Your task to perform on an android device: turn on translation in the chrome app Image 0: 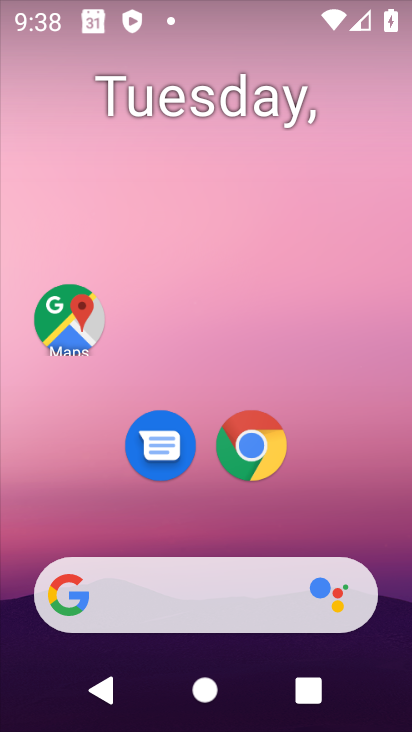
Step 0: press home button
Your task to perform on an android device: turn on translation in the chrome app Image 1: 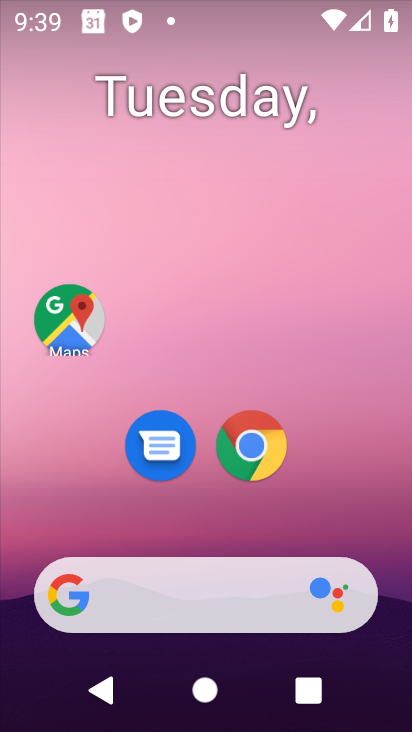
Step 1: click (250, 438)
Your task to perform on an android device: turn on translation in the chrome app Image 2: 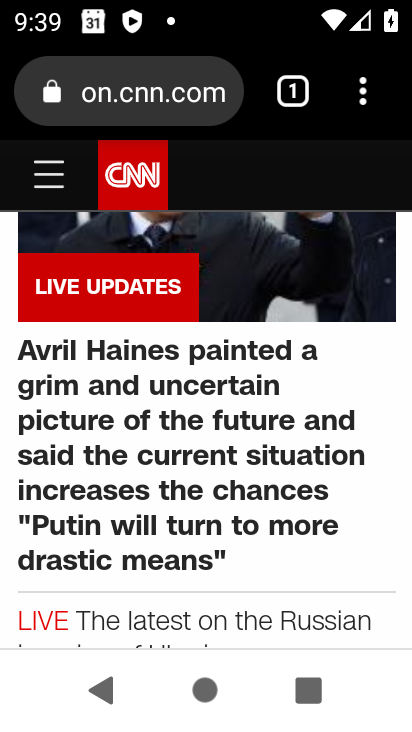
Step 2: click (367, 74)
Your task to perform on an android device: turn on translation in the chrome app Image 3: 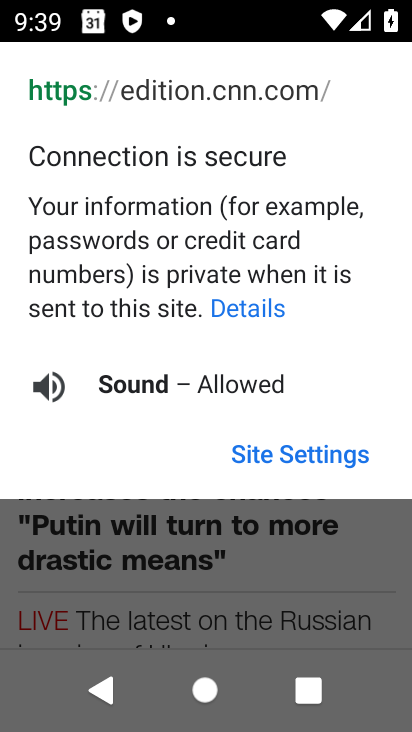
Step 3: click (160, 581)
Your task to perform on an android device: turn on translation in the chrome app Image 4: 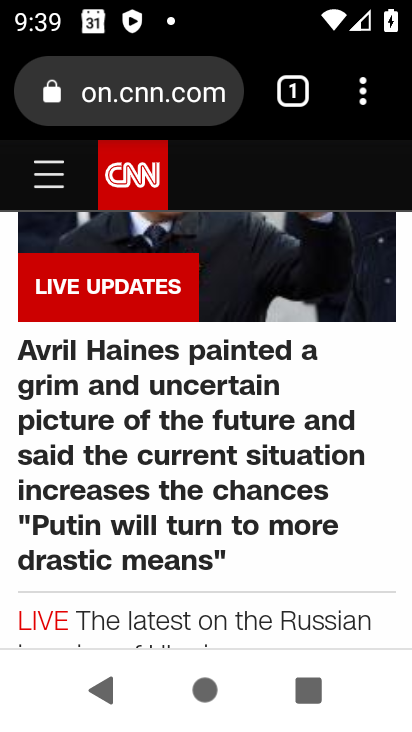
Step 4: click (367, 77)
Your task to perform on an android device: turn on translation in the chrome app Image 5: 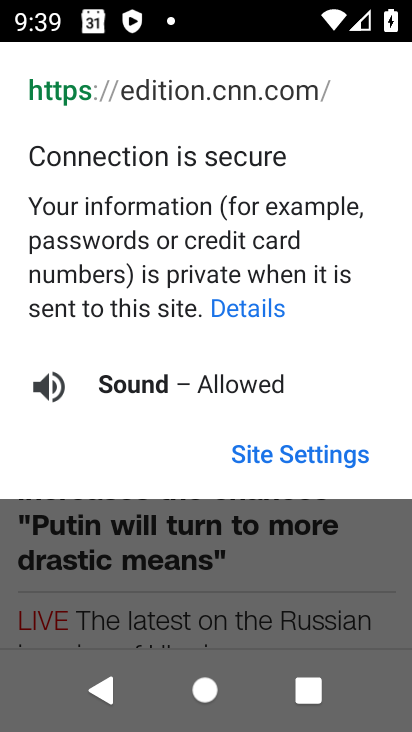
Step 5: click (171, 584)
Your task to perform on an android device: turn on translation in the chrome app Image 6: 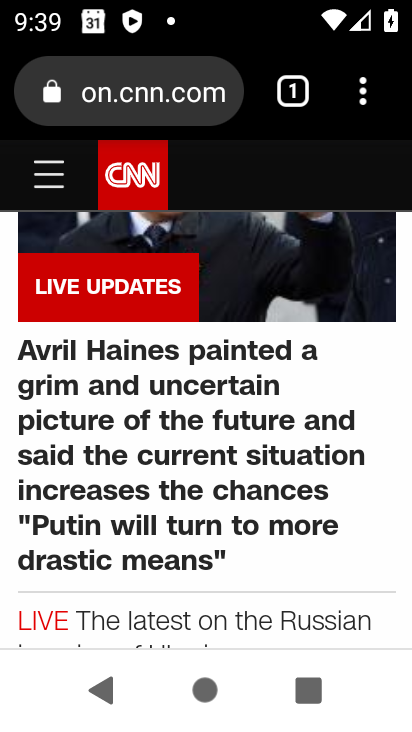
Step 6: press back button
Your task to perform on an android device: turn on translation in the chrome app Image 7: 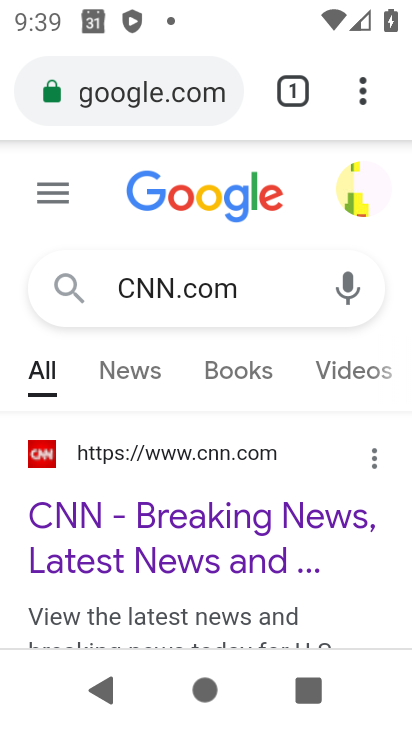
Step 7: click (367, 89)
Your task to perform on an android device: turn on translation in the chrome app Image 8: 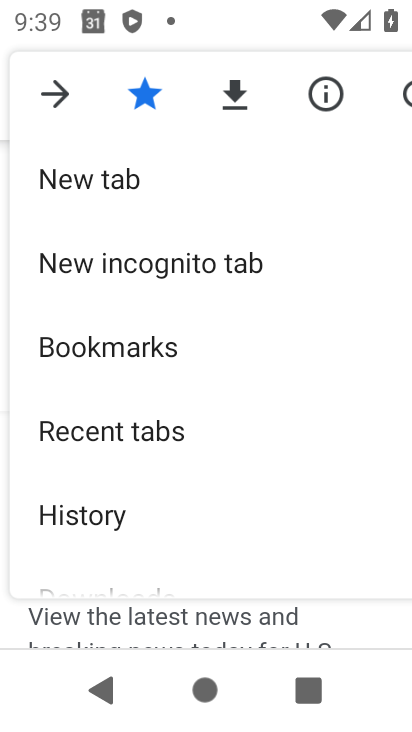
Step 8: drag from (164, 497) to (220, 52)
Your task to perform on an android device: turn on translation in the chrome app Image 9: 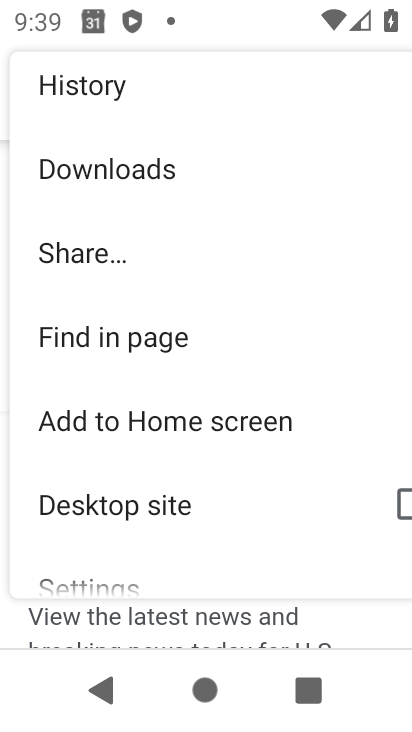
Step 9: click (137, 570)
Your task to perform on an android device: turn on translation in the chrome app Image 10: 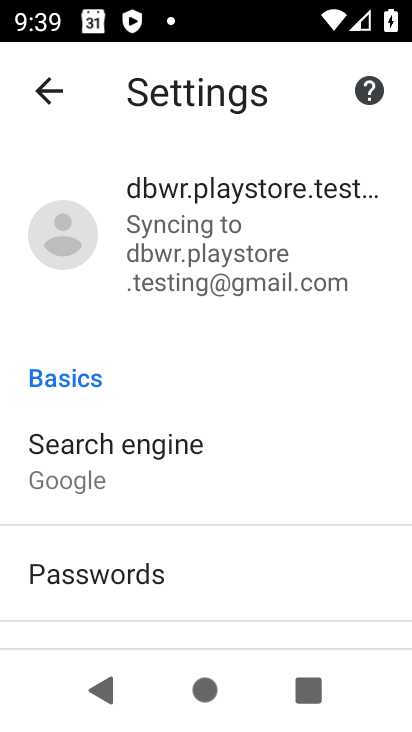
Step 10: drag from (210, 612) to (219, 125)
Your task to perform on an android device: turn on translation in the chrome app Image 11: 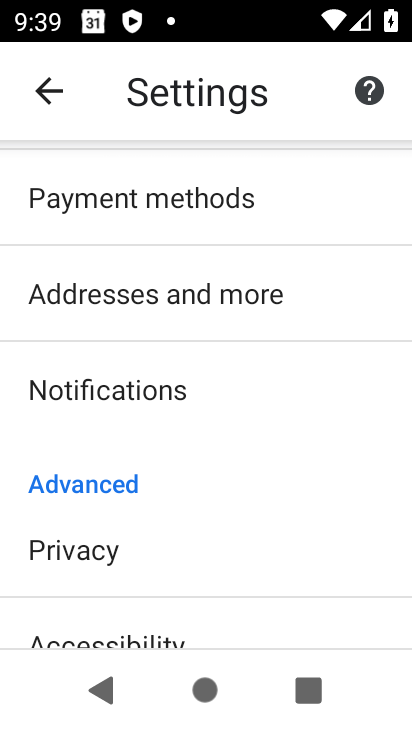
Step 11: drag from (199, 595) to (236, 151)
Your task to perform on an android device: turn on translation in the chrome app Image 12: 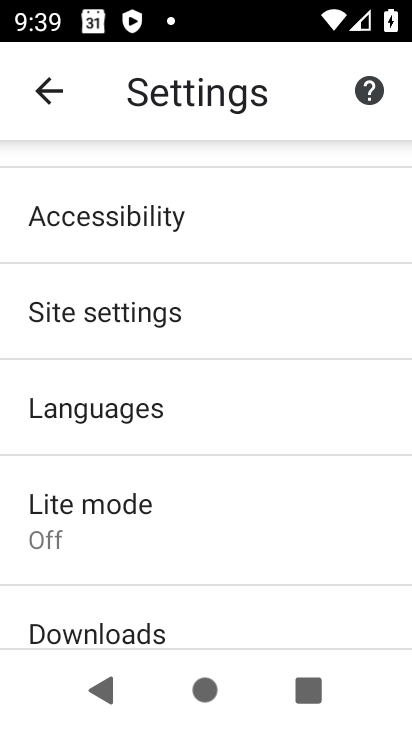
Step 12: click (164, 409)
Your task to perform on an android device: turn on translation in the chrome app Image 13: 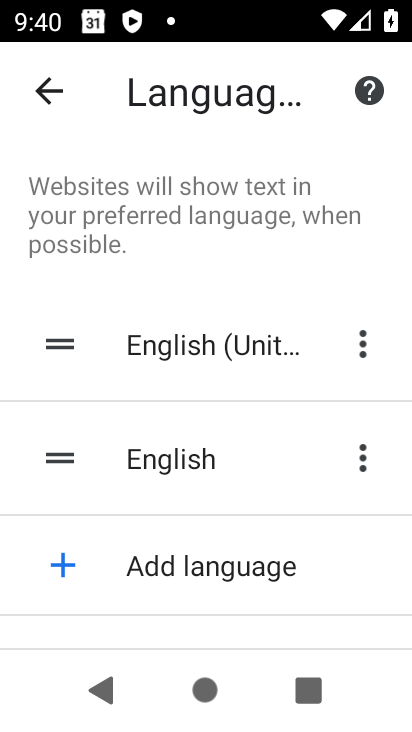
Step 13: drag from (190, 620) to (229, 227)
Your task to perform on an android device: turn on translation in the chrome app Image 14: 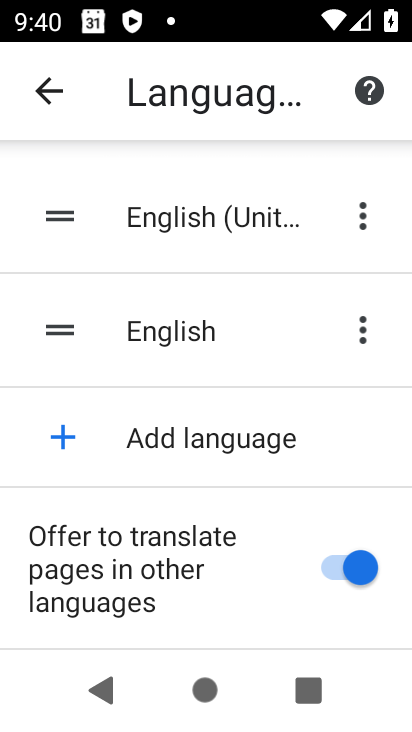
Step 14: click (47, 87)
Your task to perform on an android device: turn on translation in the chrome app Image 15: 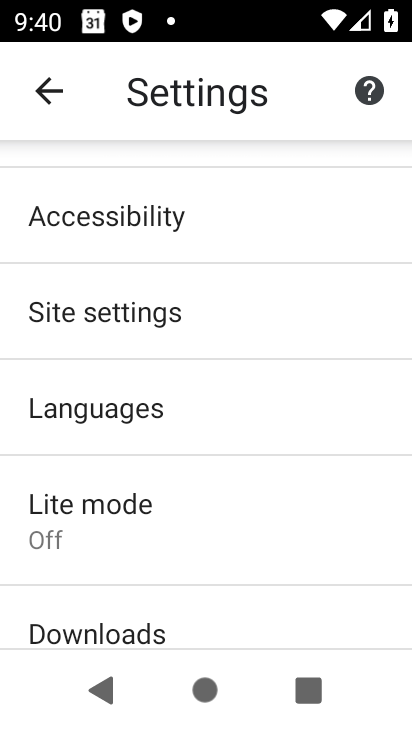
Step 15: click (184, 404)
Your task to perform on an android device: turn on translation in the chrome app Image 16: 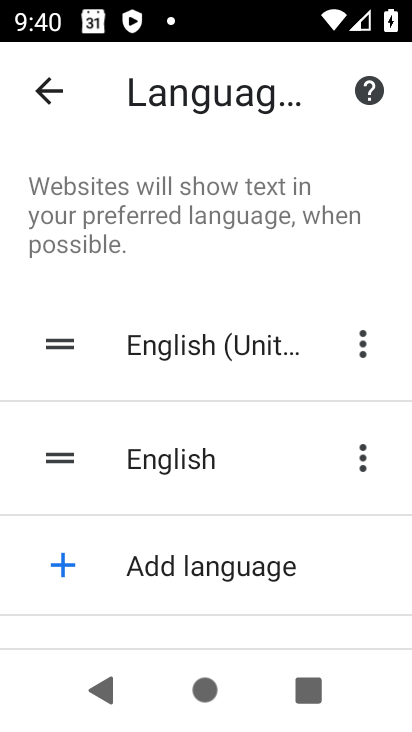
Step 16: task complete